Your task to perform on an android device: Open Yahoo.com Image 0: 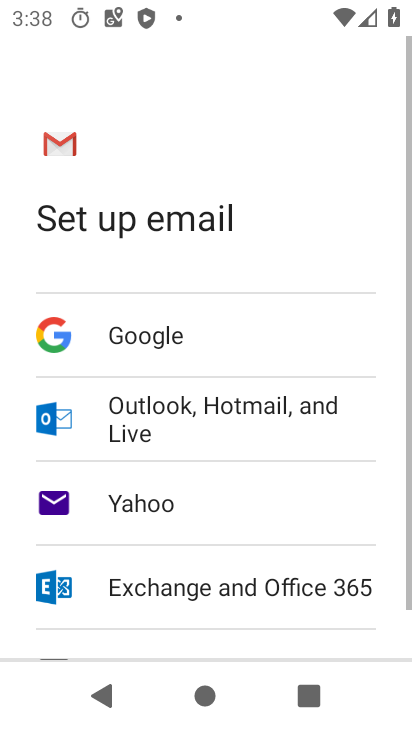
Step 0: press home button
Your task to perform on an android device: Open Yahoo.com Image 1: 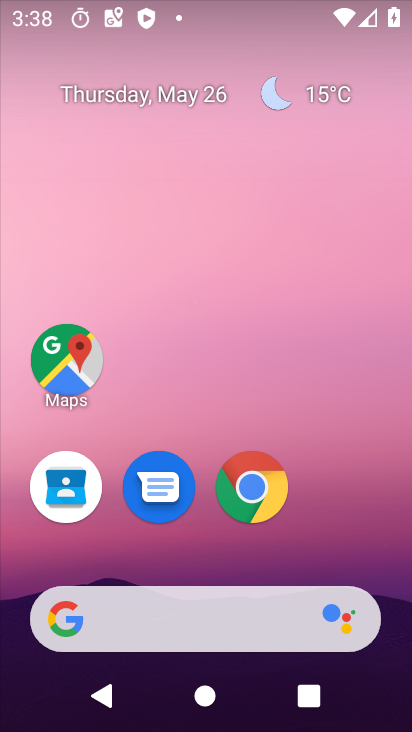
Step 1: click (242, 473)
Your task to perform on an android device: Open Yahoo.com Image 2: 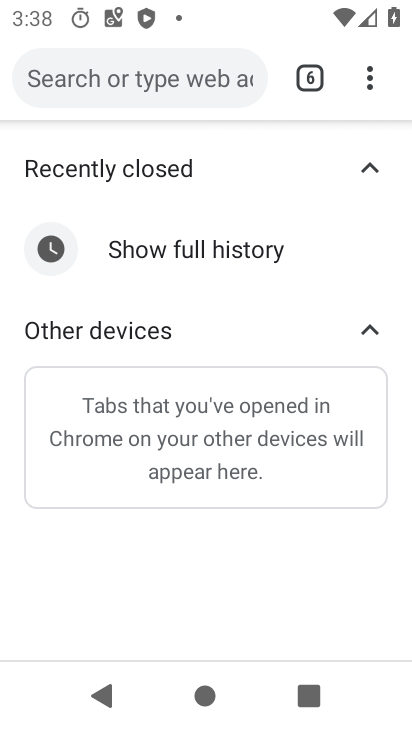
Step 2: click (310, 71)
Your task to perform on an android device: Open Yahoo.com Image 3: 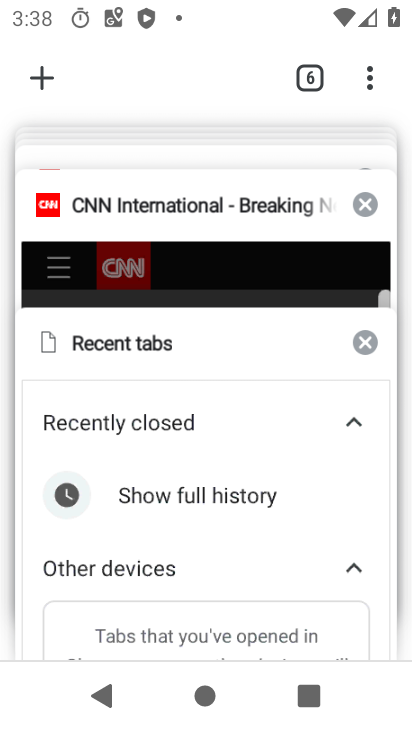
Step 3: click (47, 76)
Your task to perform on an android device: Open Yahoo.com Image 4: 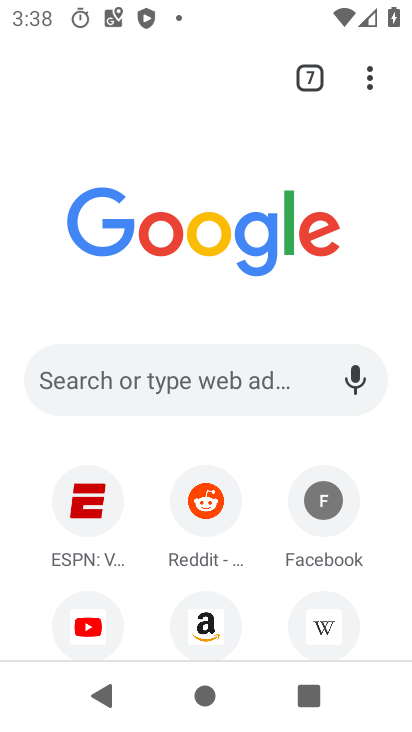
Step 4: drag from (223, 568) to (290, 379)
Your task to perform on an android device: Open Yahoo.com Image 5: 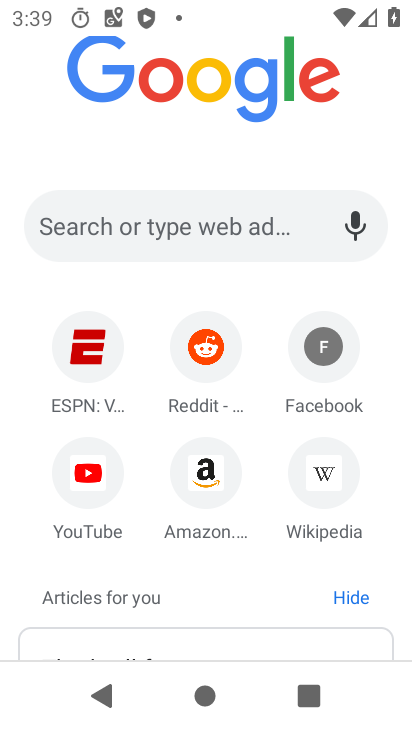
Step 5: click (150, 215)
Your task to perform on an android device: Open Yahoo.com Image 6: 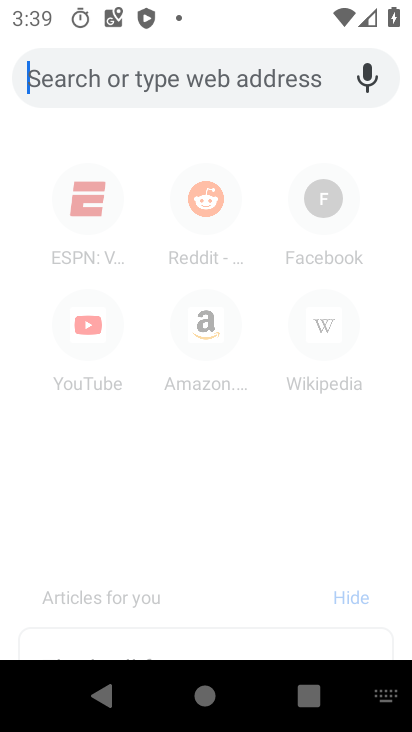
Step 6: type "Yahoo.com"
Your task to perform on an android device: Open Yahoo.com Image 7: 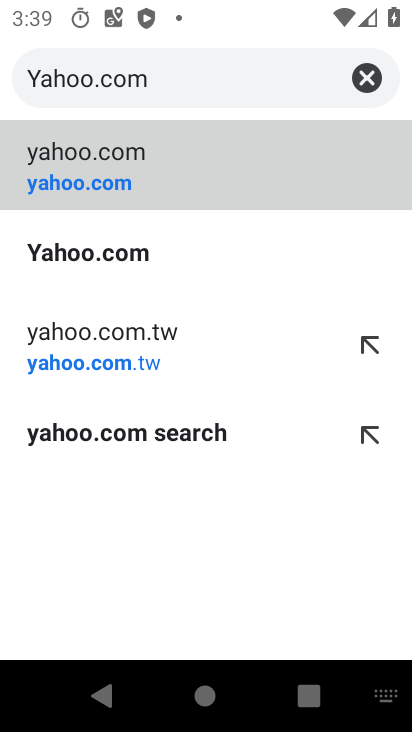
Step 7: click (171, 175)
Your task to perform on an android device: Open Yahoo.com Image 8: 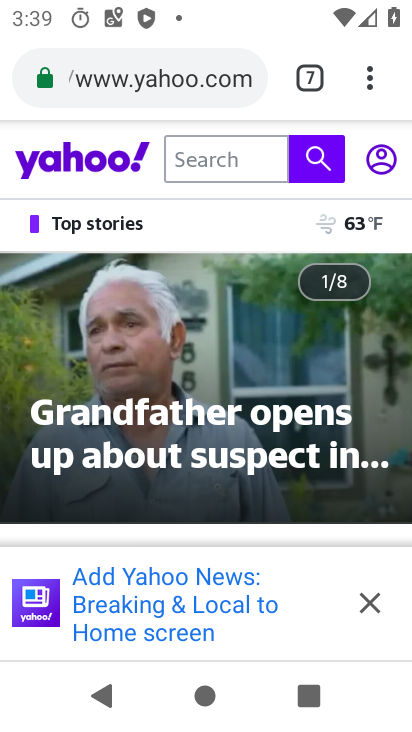
Step 8: task complete